Your task to perform on an android device: check battery use Image 0: 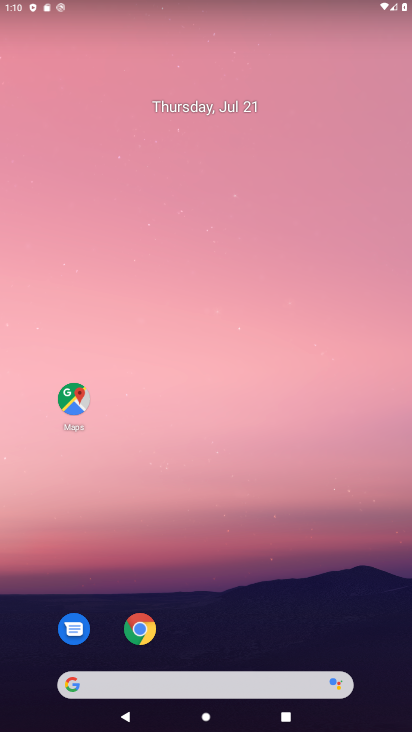
Step 0: drag from (28, 687) to (296, 109)
Your task to perform on an android device: check battery use Image 1: 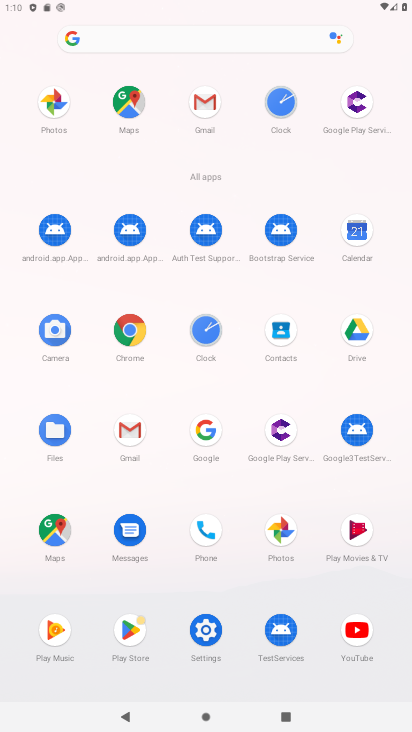
Step 1: click (219, 642)
Your task to perform on an android device: check battery use Image 2: 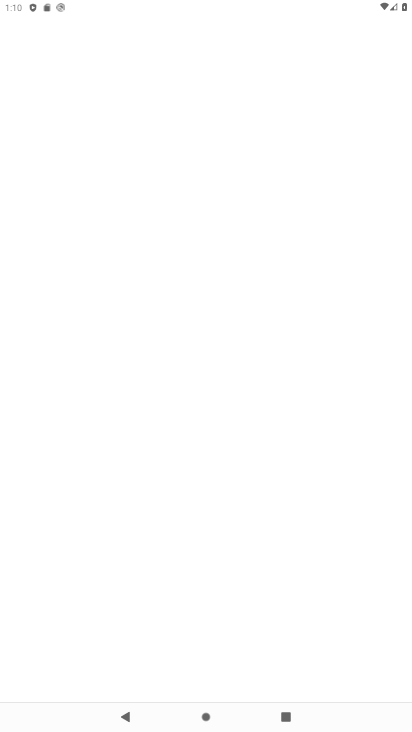
Step 2: click (204, 631)
Your task to perform on an android device: check battery use Image 3: 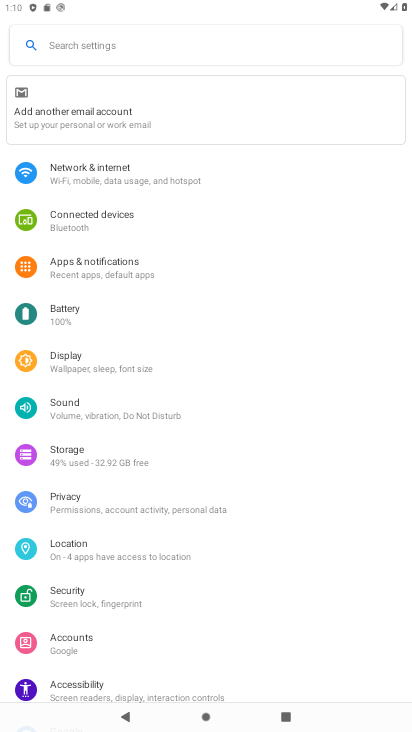
Step 3: click (67, 315)
Your task to perform on an android device: check battery use Image 4: 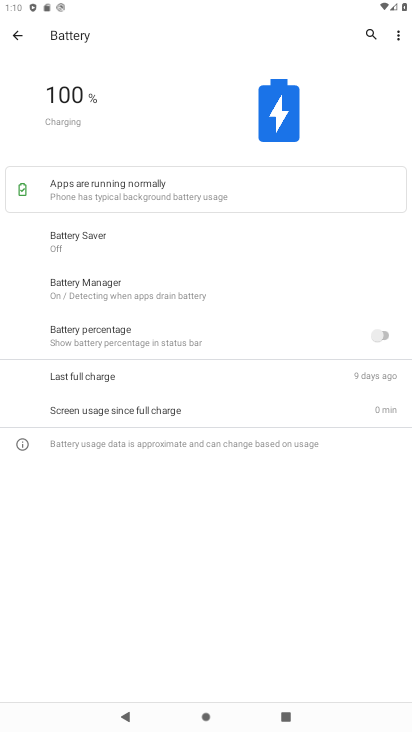
Step 4: task complete